Your task to perform on an android device: Open Reddit.com Image 0: 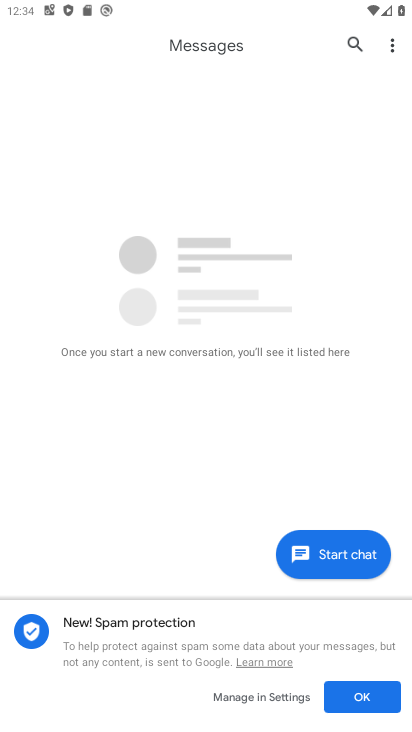
Step 0: press home button
Your task to perform on an android device: Open Reddit.com Image 1: 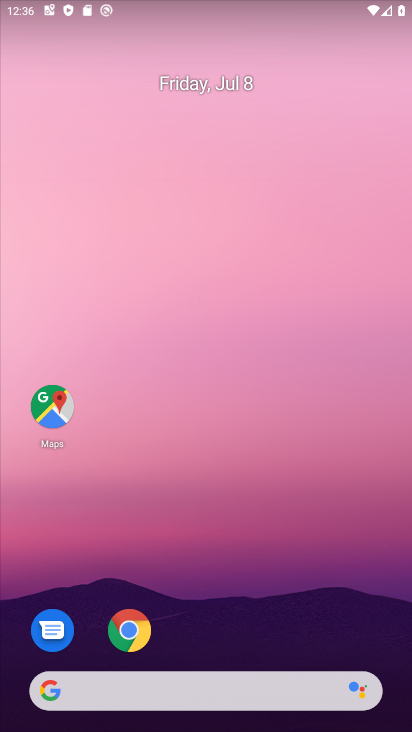
Step 1: drag from (378, 604) to (293, 46)
Your task to perform on an android device: Open Reddit.com Image 2: 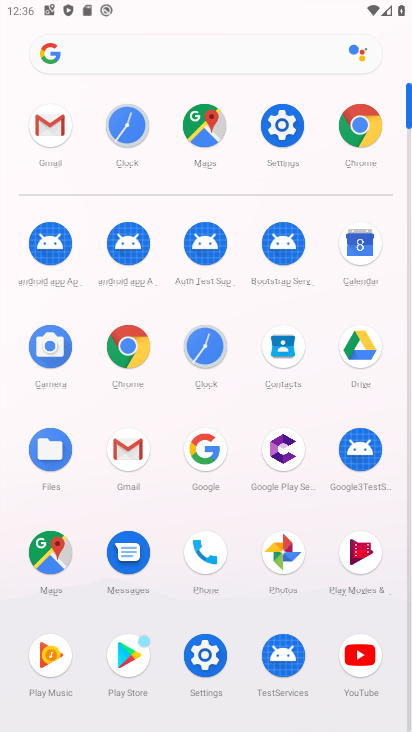
Step 2: click (193, 447)
Your task to perform on an android device: Open Reddit.com Image 3: 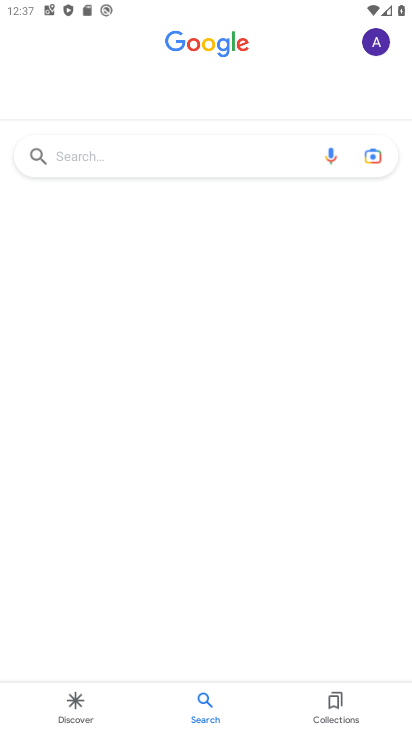
Step 3: click (135, 166)
Your task to perform on an android device: Open Reddit.com Image 4: 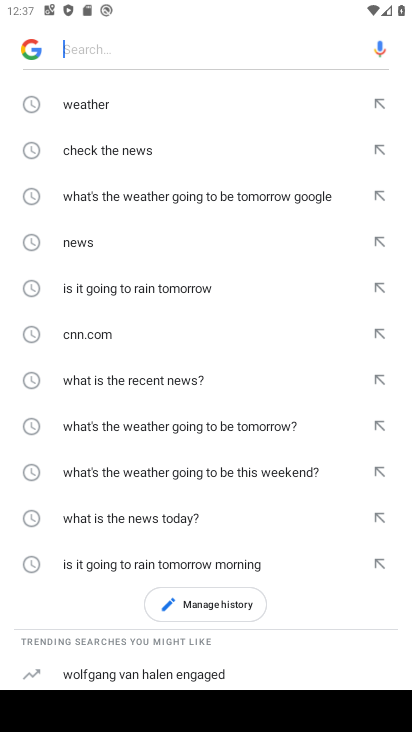
Step 4: type "Reddit.com"
Your task to perform on an android device: Open Reddit.com Image 5: 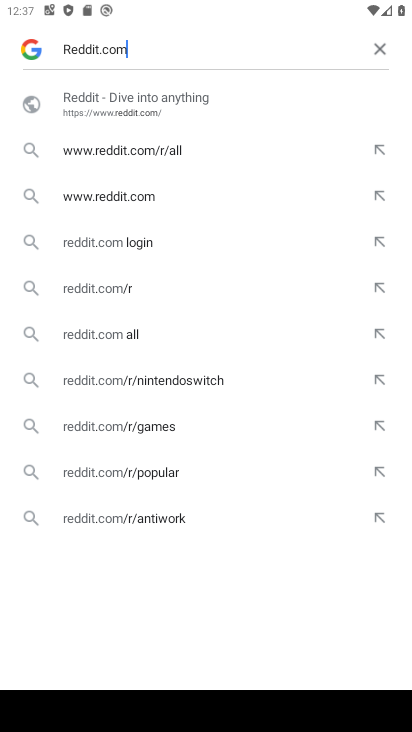
Step 5: click (136, 112)
Your task to perform on an android device: Open Reddit.com Image 6: 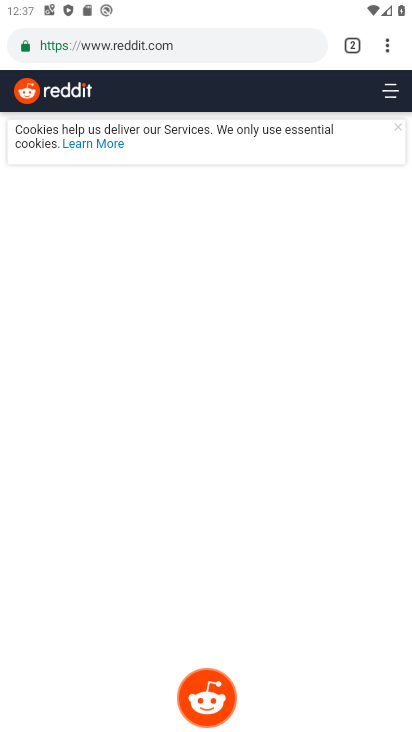
Step 6: task complete